Your task to perform on an android device: turn on sleep mode Image 0: 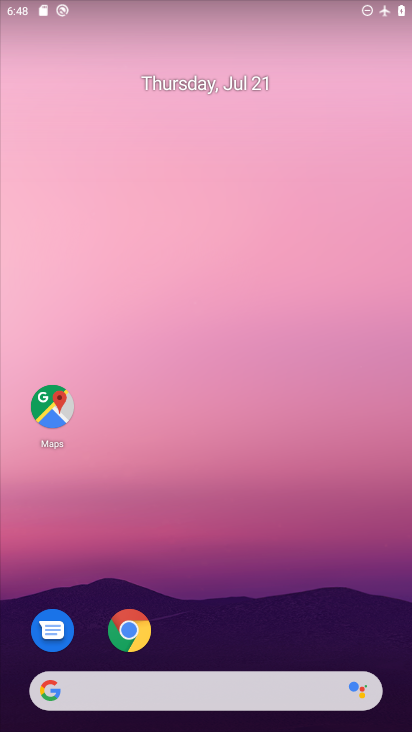
Step 0: drag from (211, 686) to (263, 239)
Your task to perform on an android device: turn on sleep mode Image 1: 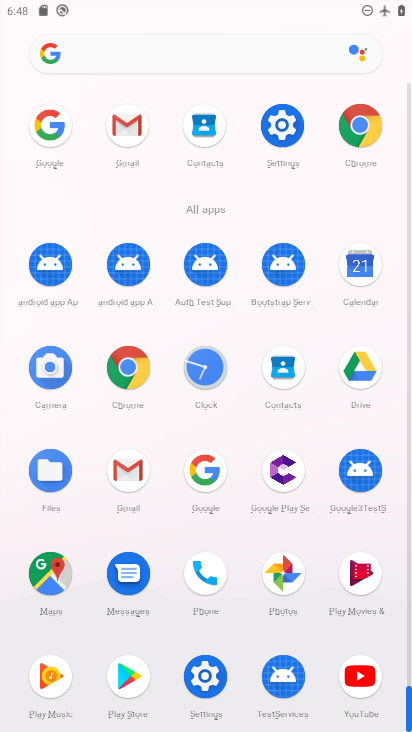
Step 1: click (282, 124)
Your task to perform on an android device: turn on sleep mode Image 2: 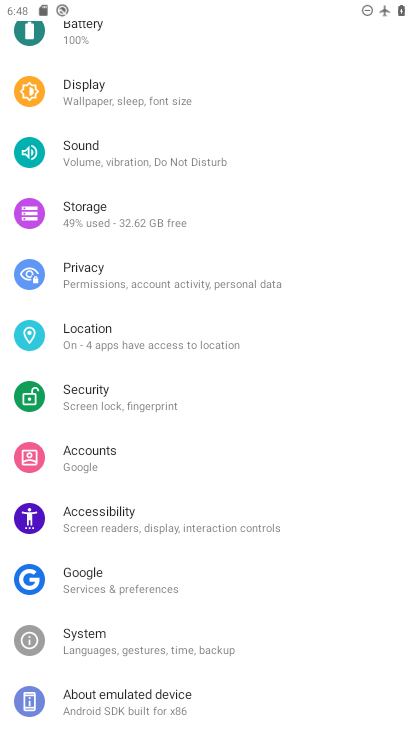
Step 2: click (161, 107)
Your task to perform on an android device: turn on sleep mode Image 3: 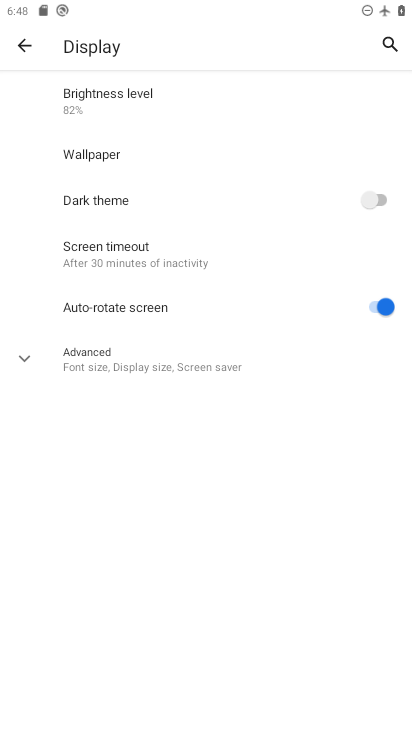
Step 3: click (163, 255)
Your task to perform on an android device: turn on sleep mode Image 4: 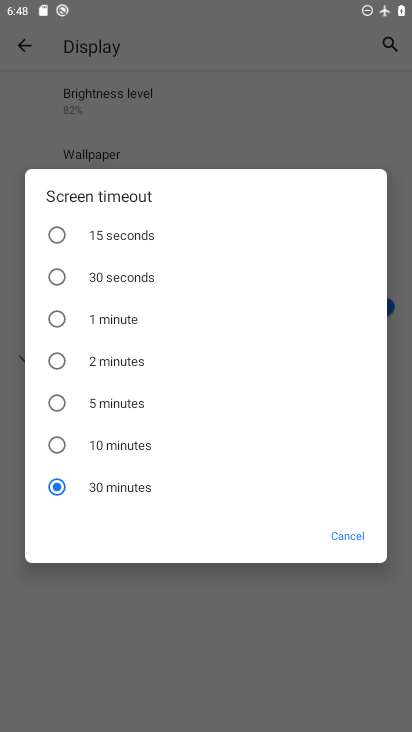
Step 4: click (338, 534)
Your task to perform on an android device: turn on sleep mode Image 5: 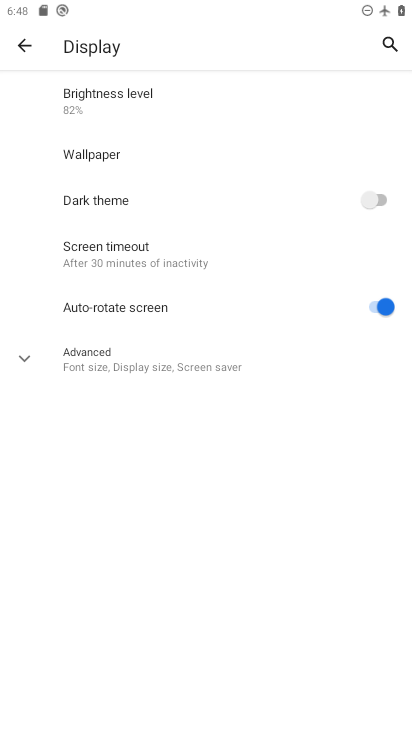
Step 5: click (147, 375)
Your task to perform on an android device: turn on sleep mode Image 6: 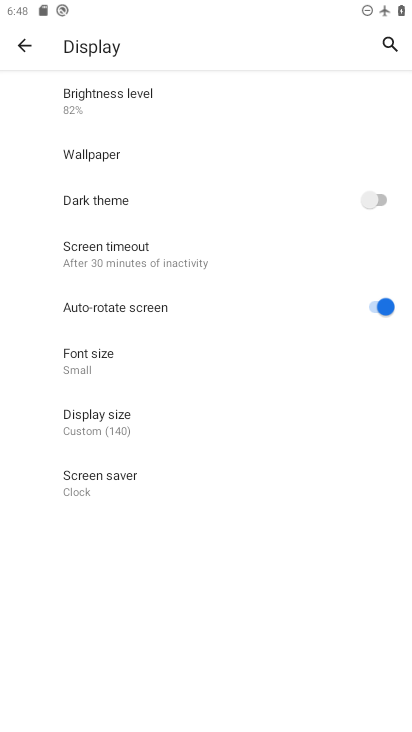
Step 6: click (121, 472)
Your task to perform on an android device: turn on sleep mode Image 7: 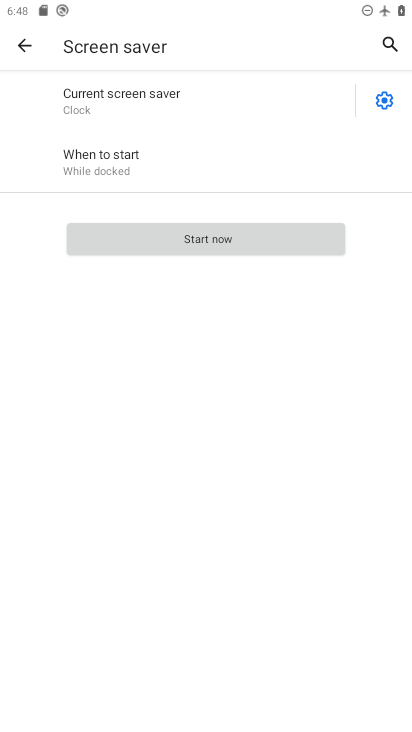
Step 7: click (384, 101)
Your task to perform on an android device: turn on sleep mode Image 8: 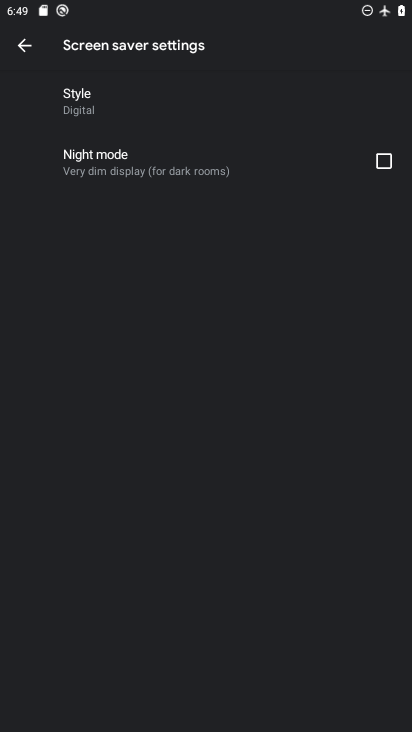
Step 8: task complete